Your task to perform on an android device: Go to Google maps Image 0: 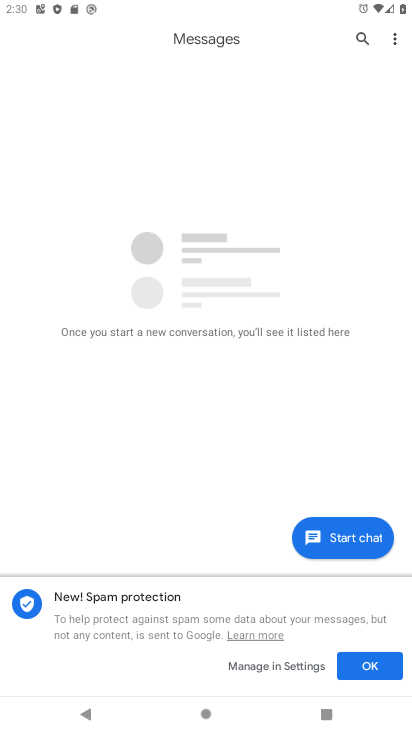
Step 0: press home button
Your task to perform on an android device: Go to Google maps Image 1: 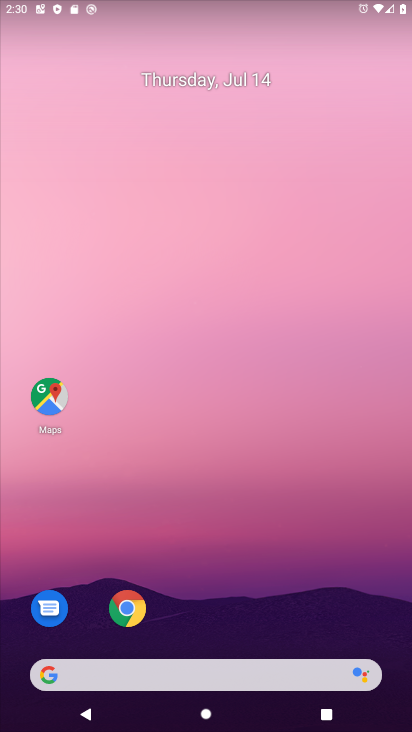
Step 1: drag from (245, 716) to (240, 157)
Your task to perform on an android device: Go to Google maps Image 2: 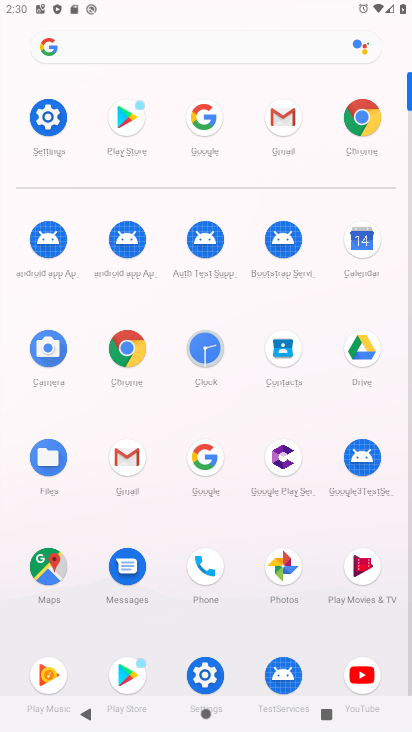
Step 2: click (50, 569)
Your task to perform on an android device: Go to Google maps Image 3: 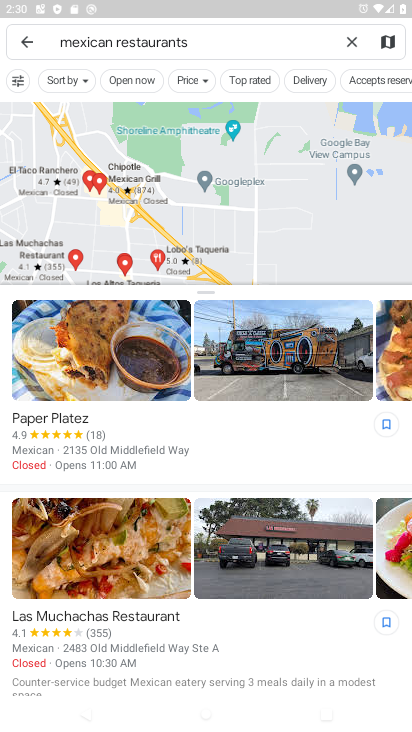
Step 3: task complete